Your task to perform on an android device: Turn on the flashlight Image 0: 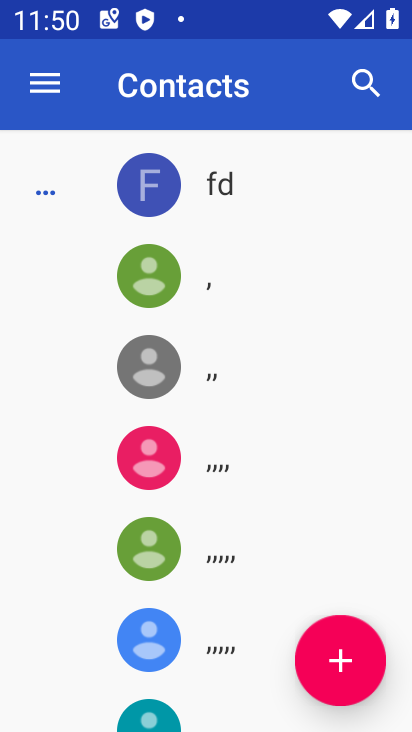
Step 0: press home button
Your task to perform on an android device: Turn on the flashlight Image 1: 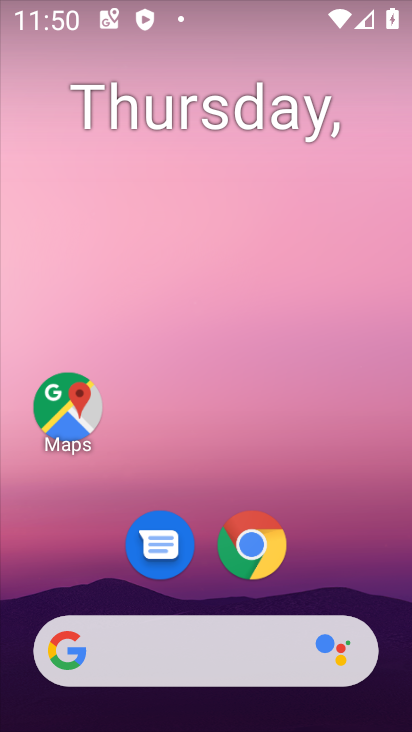
Step 1: drag from (332, 573) to (311, 252)
Your task to perform on an android device: Turn on the flashlight Image 2: 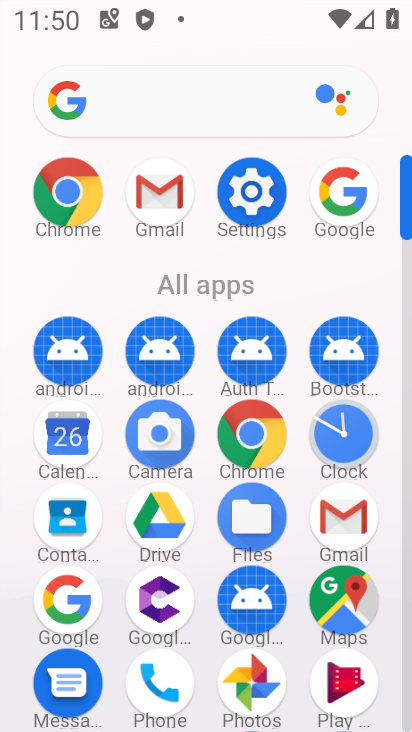
Step 2: click (250, 185)
Your task to perform on an android device: Turn on the flashlight Image 3: 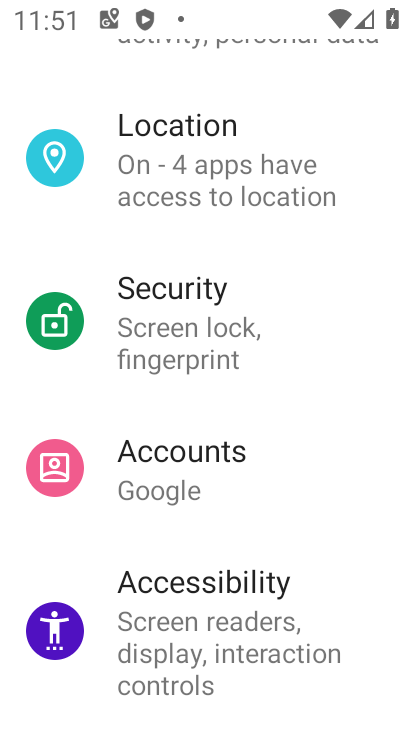
Step 3: task complete